Your task to perform on an android device: turn off wifi Image 0: 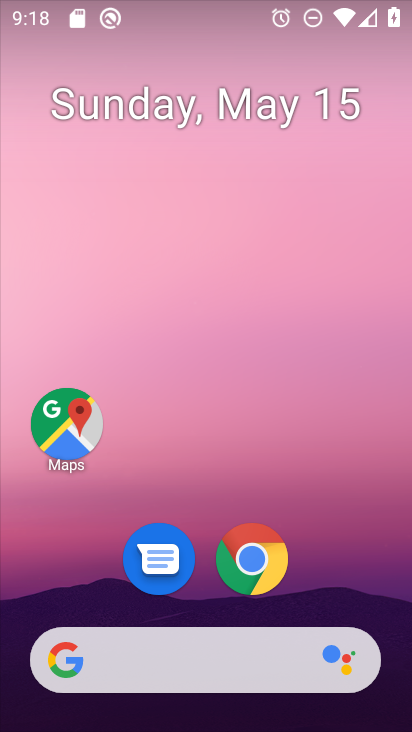
Step 0: drag from (347, 567) to (322, 66)
Your task to perform on an android device: turn off wifi Image 1: 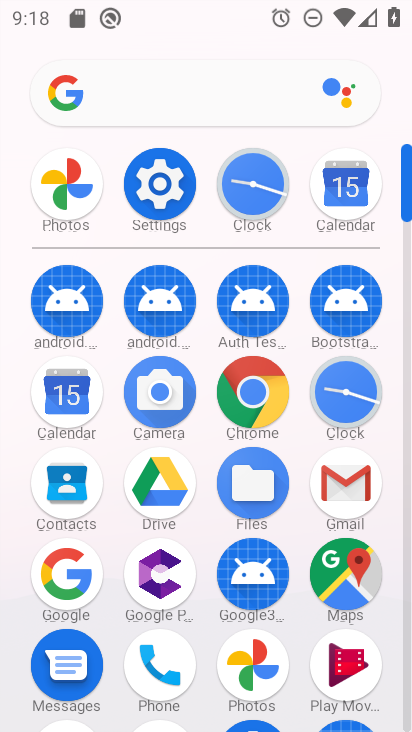
Step 1: click (145, 205)
Your task to perform on an android device: turn off wifi Image 2: 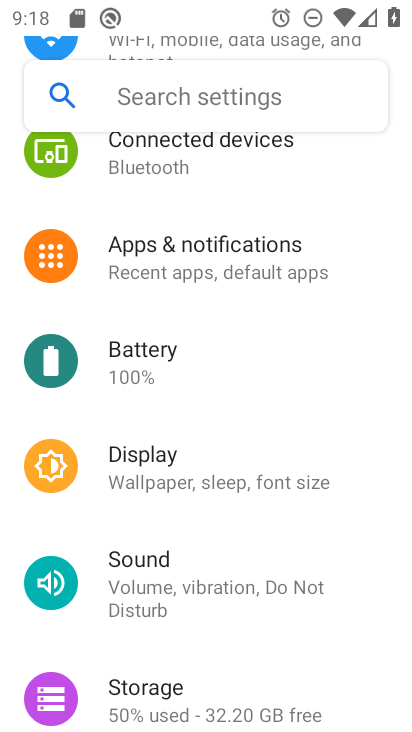
Step 2: drag from (213, 255) to (193, 706)
Your task to perform on an android device: turn off wifi Image 3: 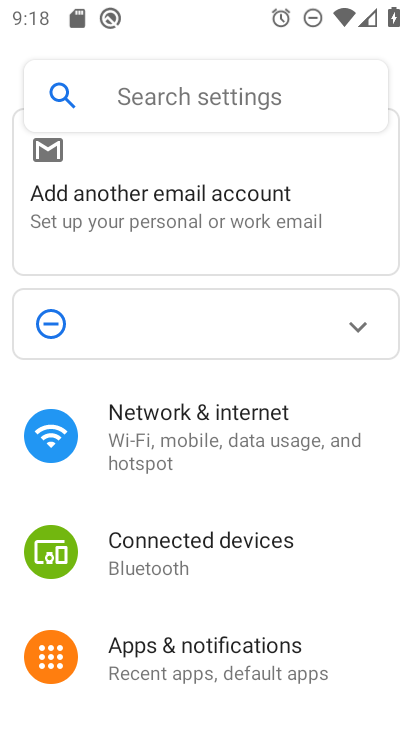
Step 3: click (229, 434)
Your task to perform on an android device: turn off wifi Image 4: 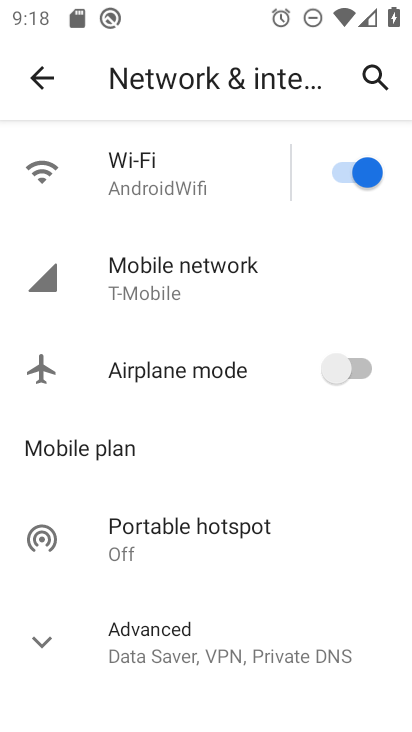
Step 4: click (352, 165)
Your task to perform on an android device: turn off wifi Image 5: 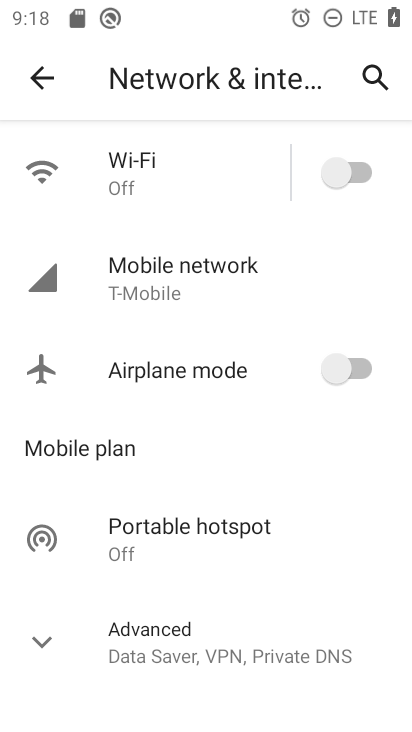
Step 5: task complete